Your task to perform on an android device: Go to CNN.com Image 0: 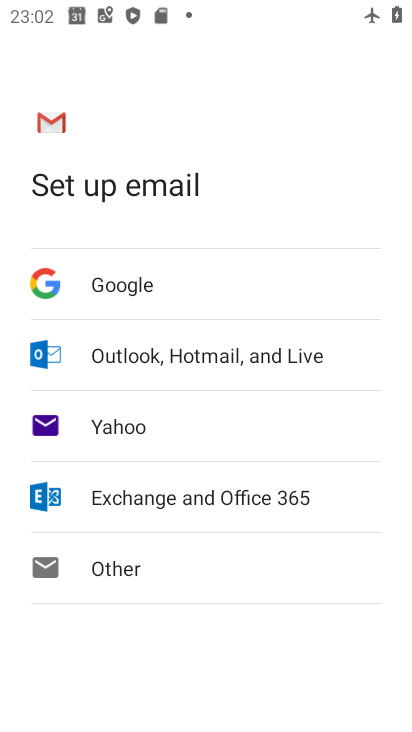
Step 0: press home button
Your task to perform on an android device: Go to CNN.com Image 1: 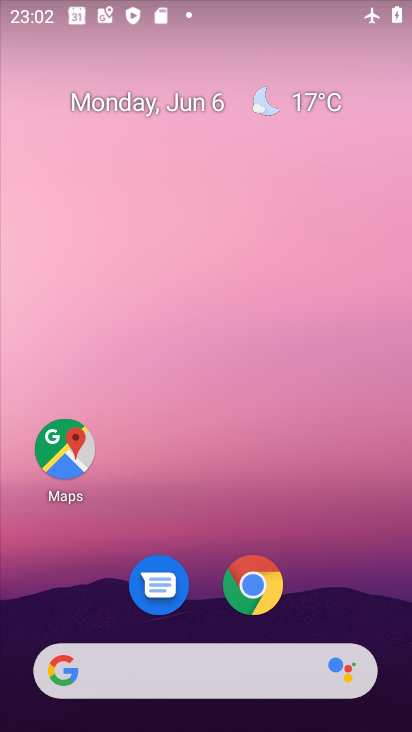
Step 1: click (239, 668)
Your task to perform on an android device: Go to CNN.com Image 2: 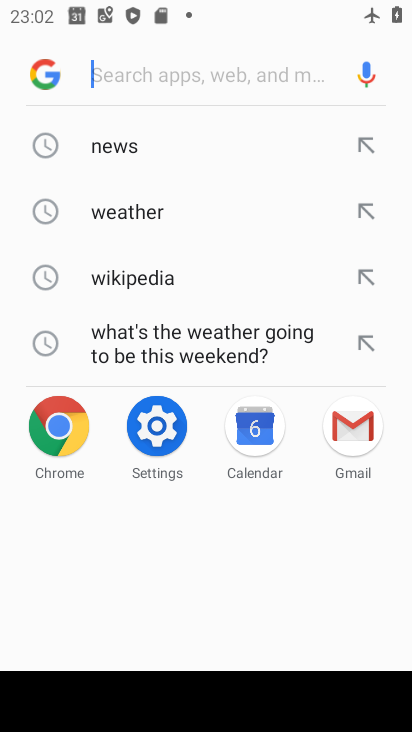
Step 2: type "cnn.com"
Your task to perform on an android device: Go to CNN.com Image 3: 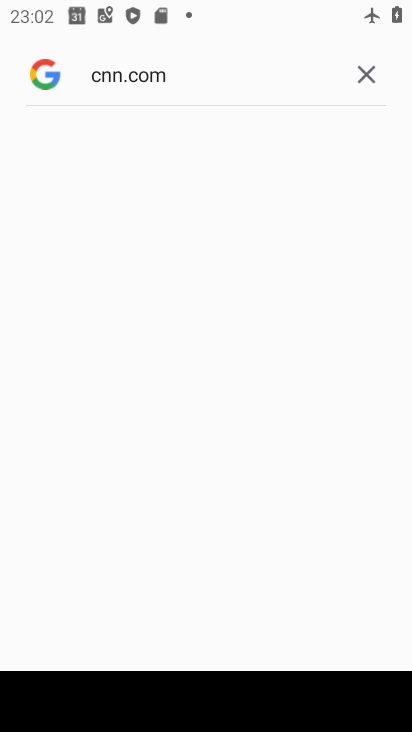
Step 3: task complete